Your task to perform on an android device: Go to Wikipedia Image 0: 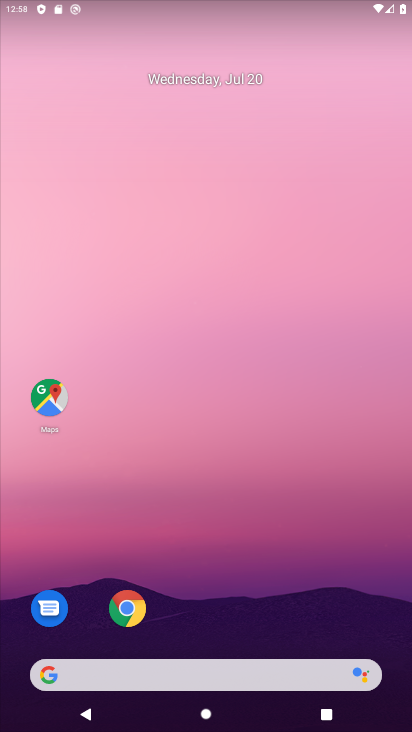
Step 0: drag from (186, 639) to (262, 160)
Your task to perform on an android device: Go to Wikipedia Image 1: 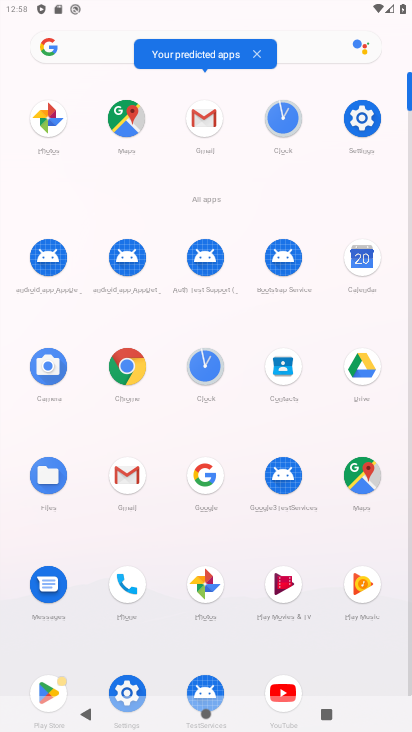
Step 1: click (135, 372)
Your task to perform on an android device: Go to Wikipedia Image 2: 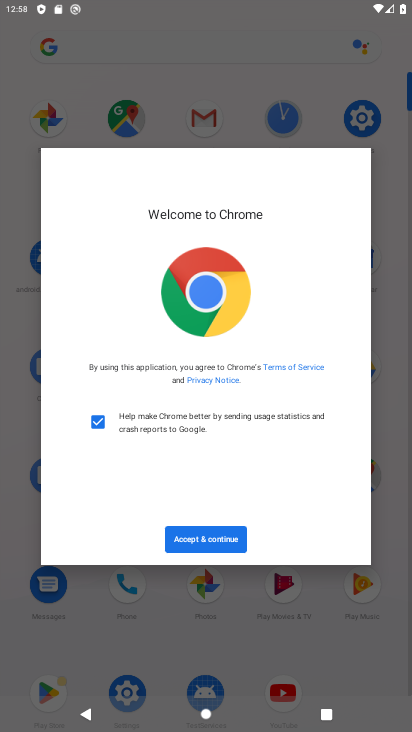
Step 2: click (196, 538)
Your task to perform on an android device: Go to Wikipedia Image 3: 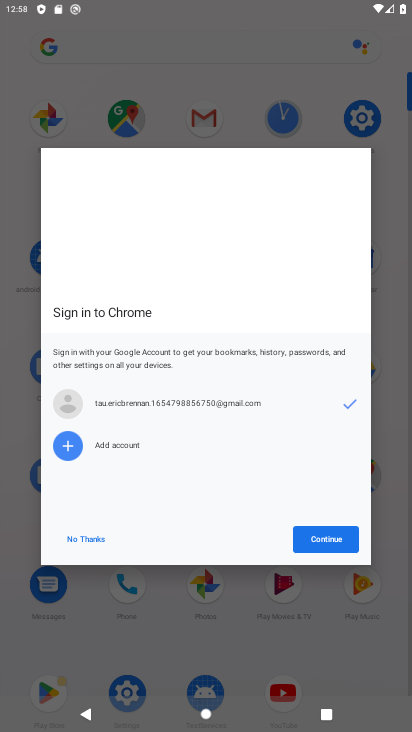
Step 3: click (338, 536)
Your task to perform on an android device: Go to Wikipedia Image 4: 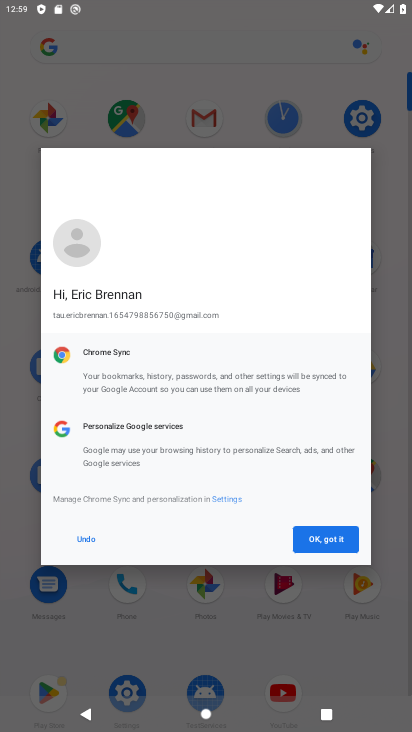
Step 4: click (345, 536)
Your task to perform on an android device: Go to Wikipedia Image 5: 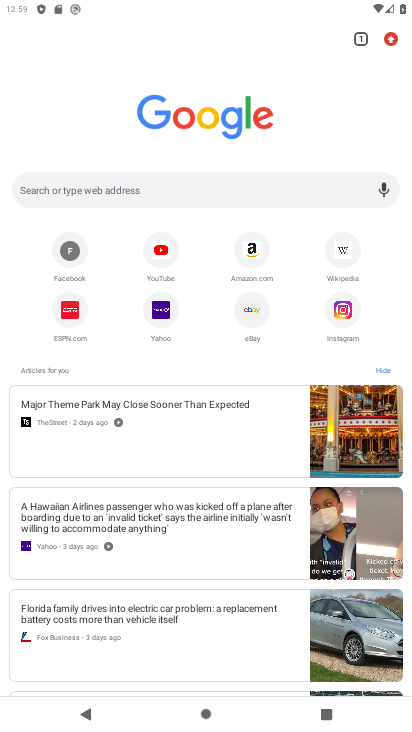
Step 5: click (336, 248)
Your task to perform on an android device: Go to Wikipedia Image 6: 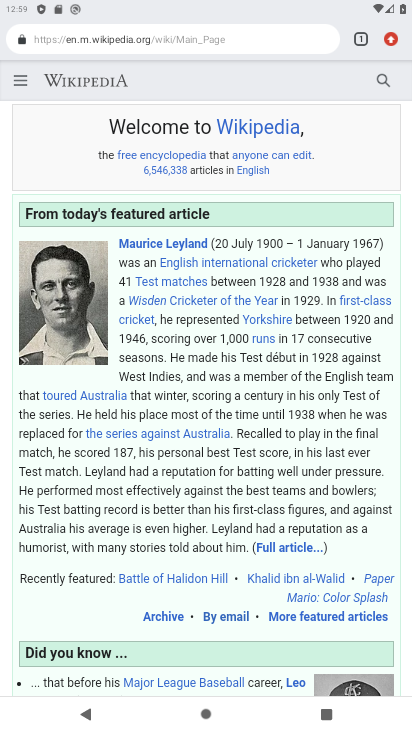
Step 6: task complete